Your task to perform on an android device: show emergency info Image 0: 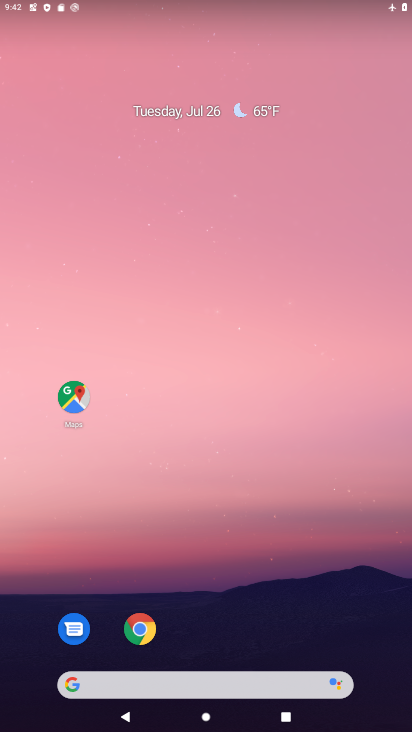
Step 0: drag from (315, 592) to (210, 72)
Your task to perform on an android device: show emergency info Image 1: 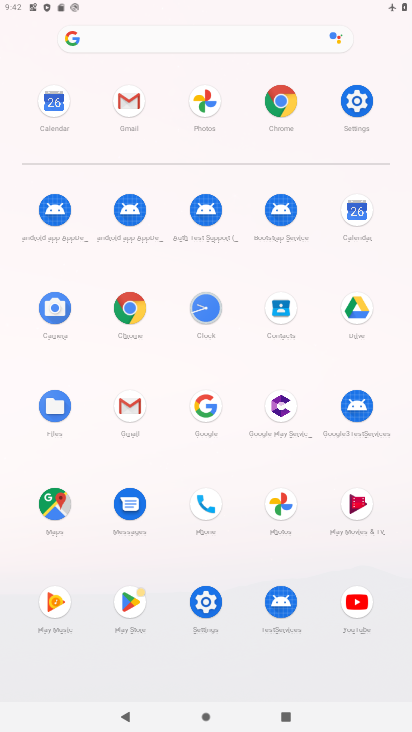
Step 1: click (351, 100)
Your task to perform on an android device: show emergency info Image 2: 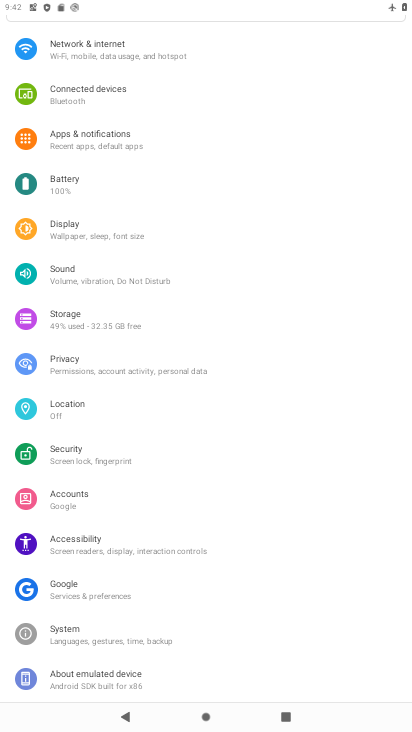
Step 2: click (134, 671)
Your task to perform on an android device: show emergency info Image 3: 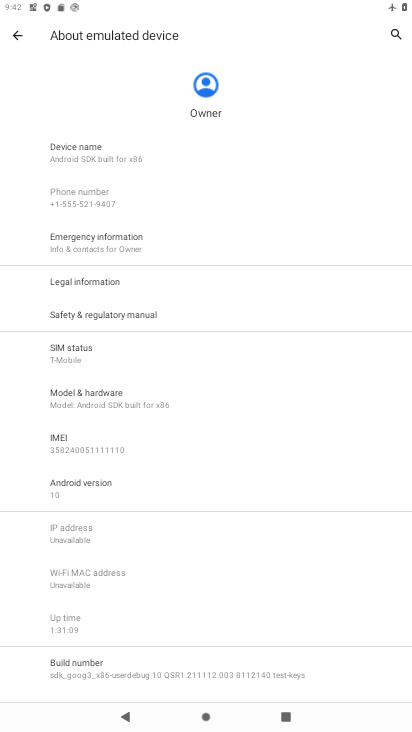
Step 3: click (94, 246)
Your task to perform on an android device: show emergency info Image 4: 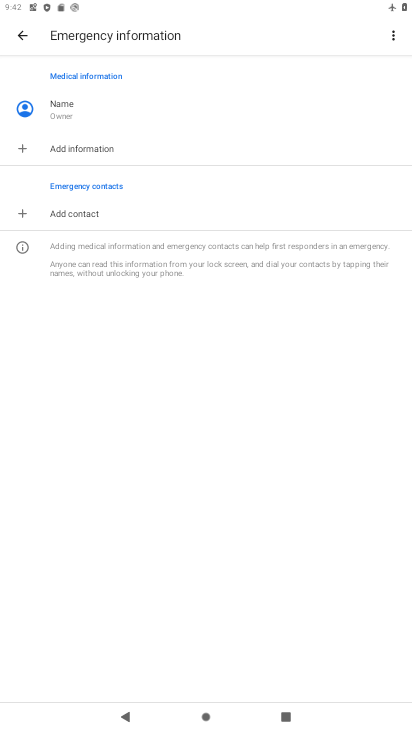
Step 4: task complete